Your task to perform on an android device: turn off notifications in google photos Image 0: 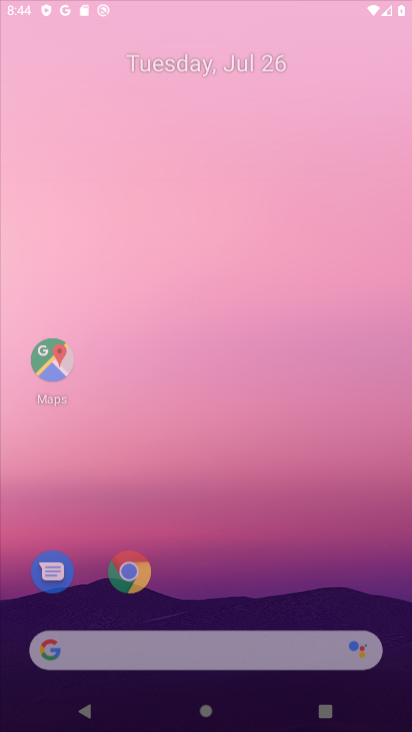
Step 0: press home button
Your task to perform on an android device: turn off notifications in google photos Image 1: 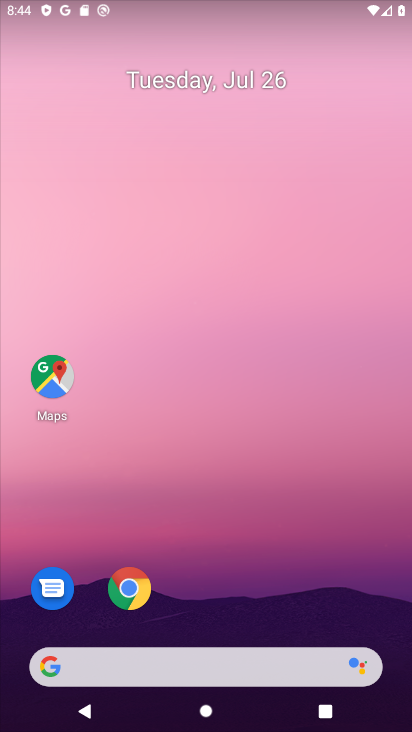
Step 1: drag from (210, 621) to (213, 74)
Your task to perform on an android device: turn off notifications in google photos Image 2: 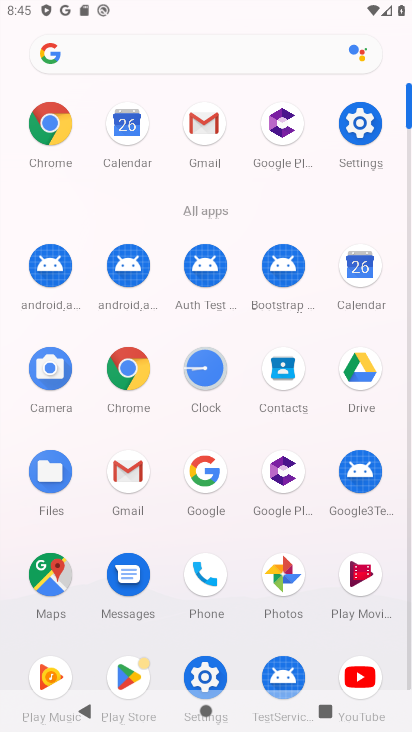
Step 2: click (279, 569)
Your task to perform on an android device: turn off notifications in google photos Image 3: 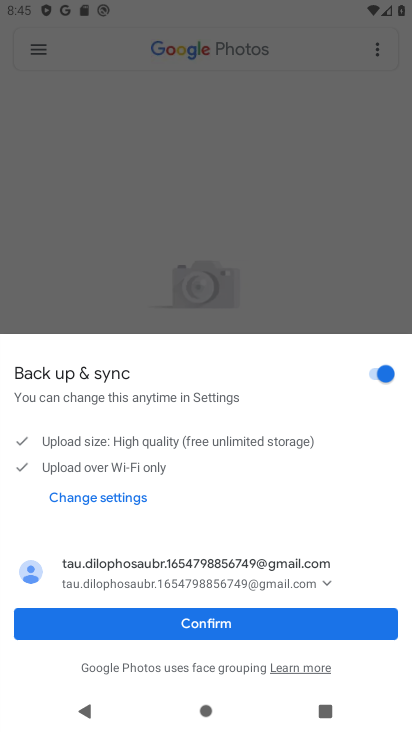
Step 3: click (217, 620)
Your task to perform on an android device: turn off notifications in google photos Image 4: 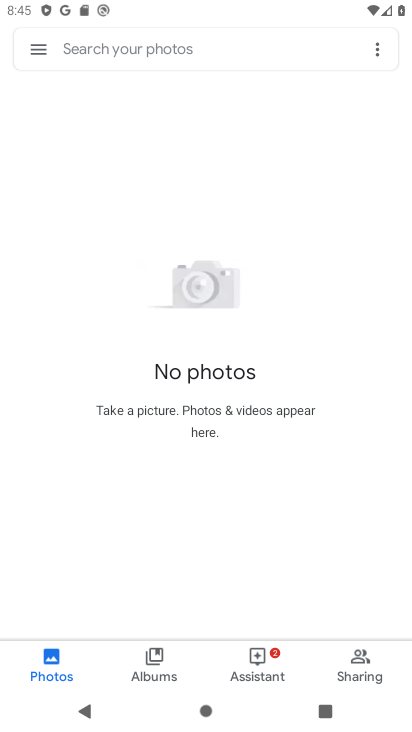
Step 4: click (33, 51)
Your task to perform on an android device: turn off notifications in google photos Image 5: 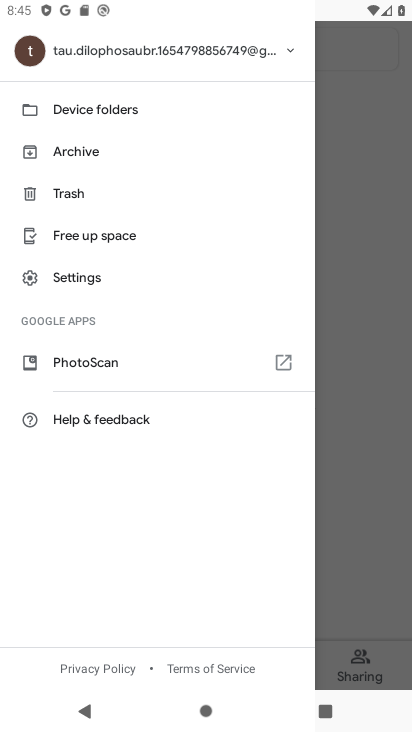
Step 5: click (110, 271)
Your task to perform on an android device: turn off notifications in google photos Image 6: 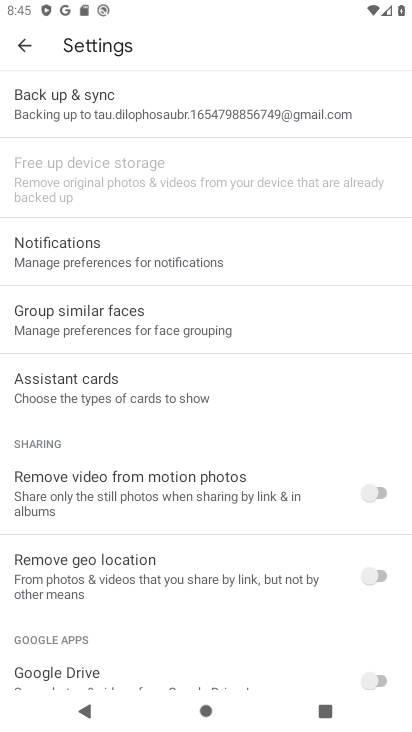
Step 6: click (114, 247)
Your task to perform on an android device: turn off notifications in google photos Image 7: 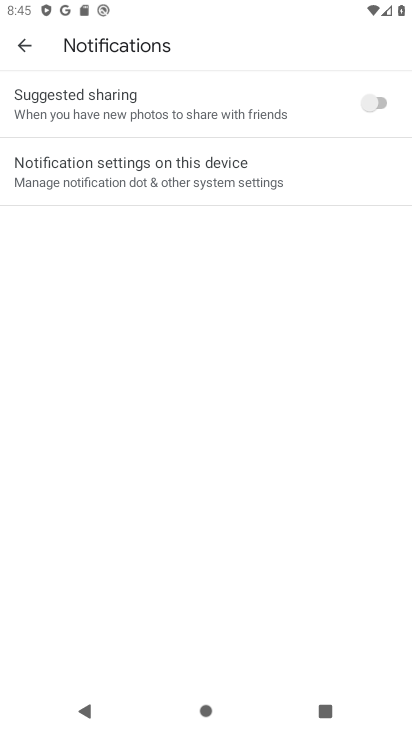
Step 7: click (138, 184)
Your task to perform on an android device: turn off notifications in google photos Image 8: 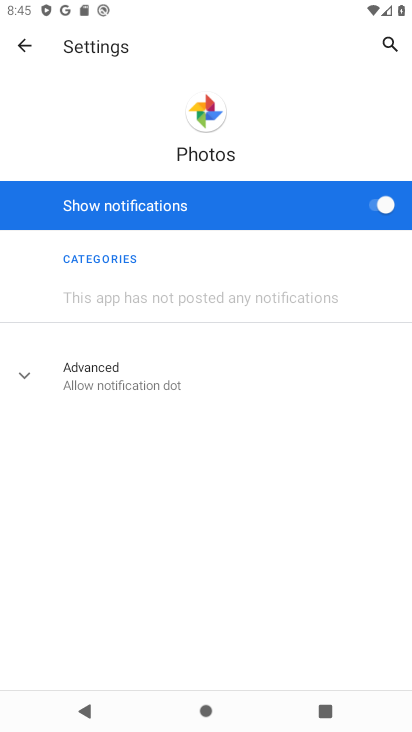
Step 8: click (378, 204)
Your task to perform on an android device: turn off notifications in google photos Image 9: 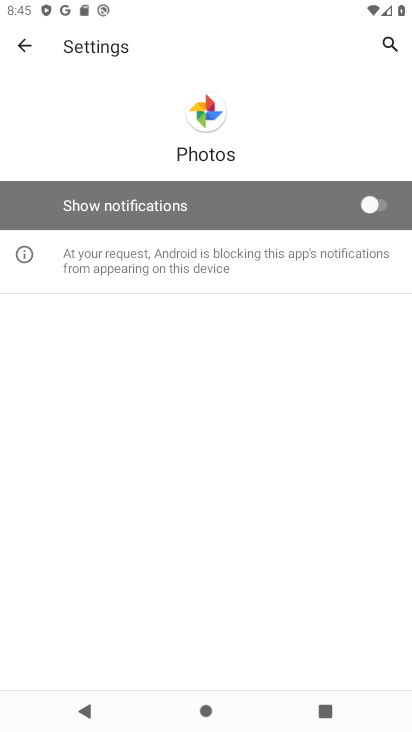
Step 9: task complete